Your task to perform on an android device: Show me popular videos on Youtube Image 0: 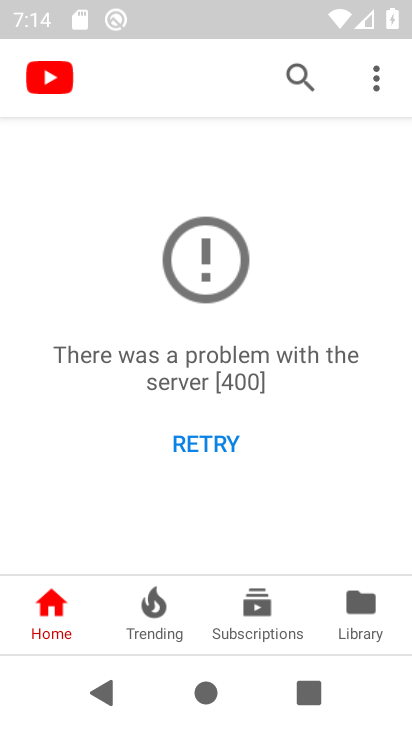
Step 0: press home button
Your task to perform on an android device: Show me popular videos on Youtube Image 1: 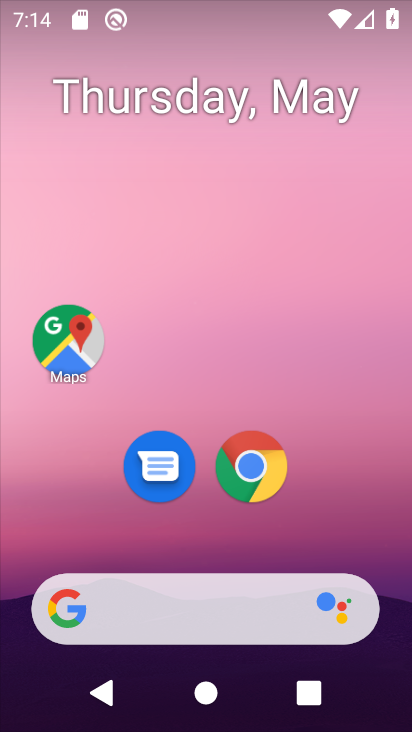
Step 1: drag from (379, 523) to (356, 83)
Your task to perform on an android device: Show me popular videos on Youtube Image 2: 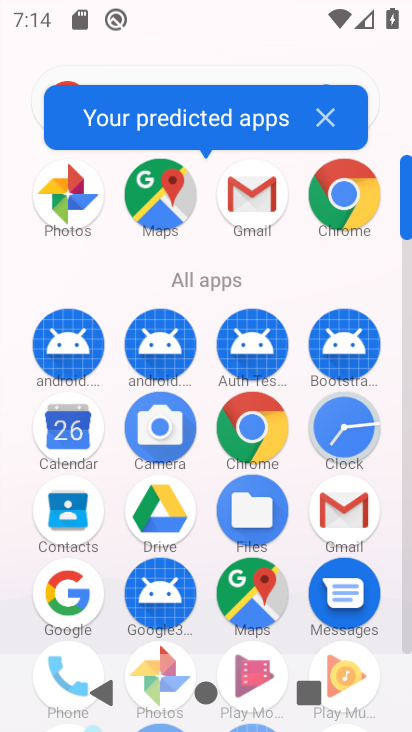
Step 2: click (407, 649)
Your task to perform on an android device: Show me popular videos on Youtube Image 3: 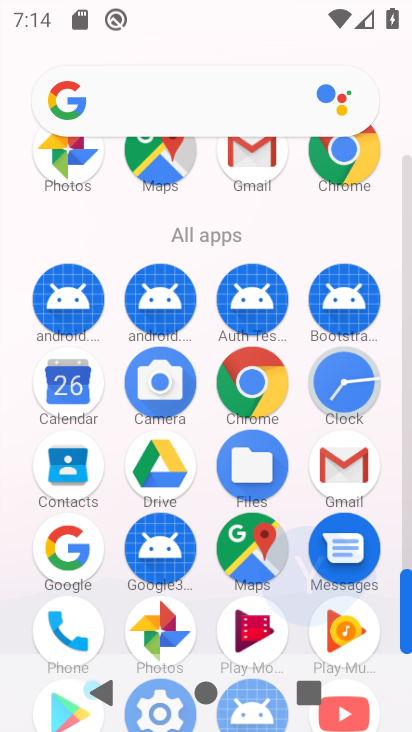
Step 3: click (407, 649)
Your task to perform on an android device: Show me popular videos on Youtube Image 4: 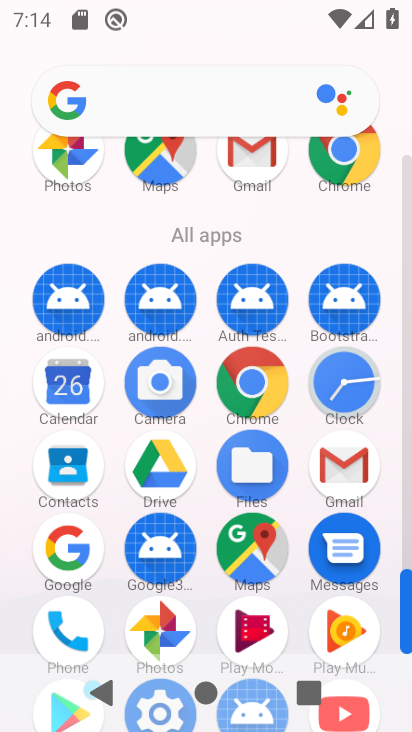
Step 4: drag from (401, 638) to (402, 731)
Your task to perform on an android device: Show me popular videos on Youtube Image 5: 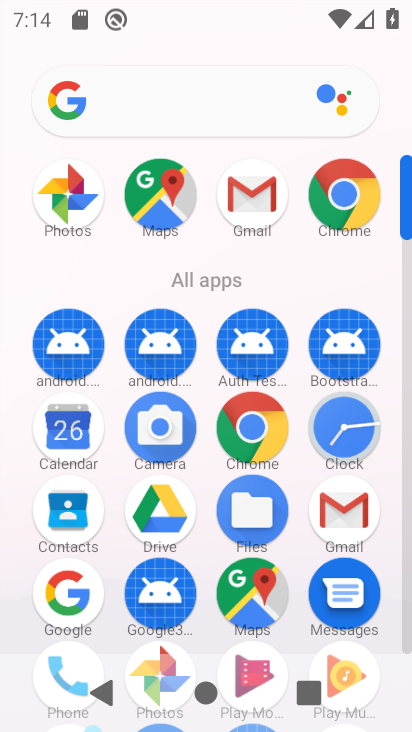
Step 5: click (348, 631)
Your task to perform on an android device: Show me popular videos on Youtube Image 6: 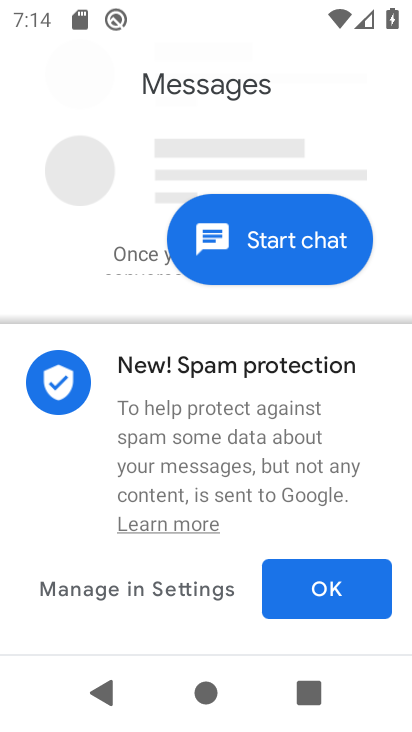
Step 6: click (211, 685)
Your task to perform on an android device: Show me popular videos on Youtube Image 7: 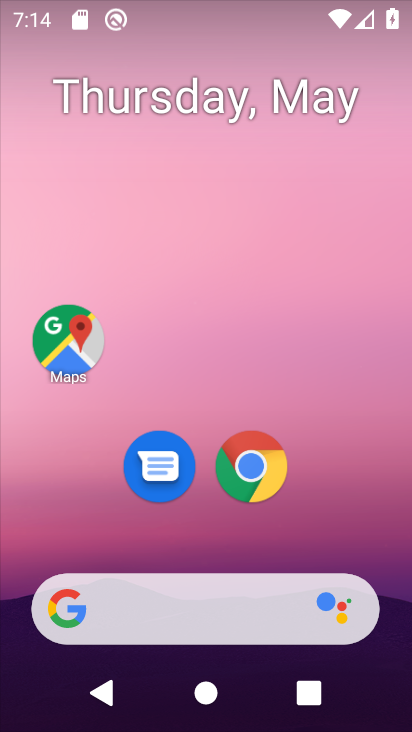
Step 7: drag from (350, 511) to (352, 28)
Your task to perform on an android device: Show me popular videos on Youtube Image 8: 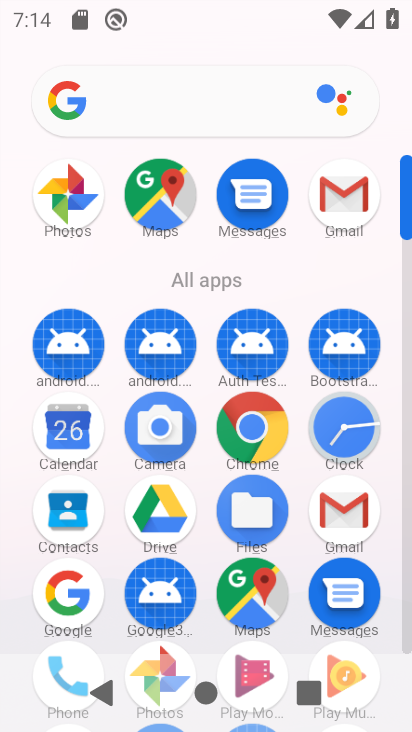
Step 8: click (405, 597)
Your task to perform on an android device: Show me popular videos on Youtube Image 9: 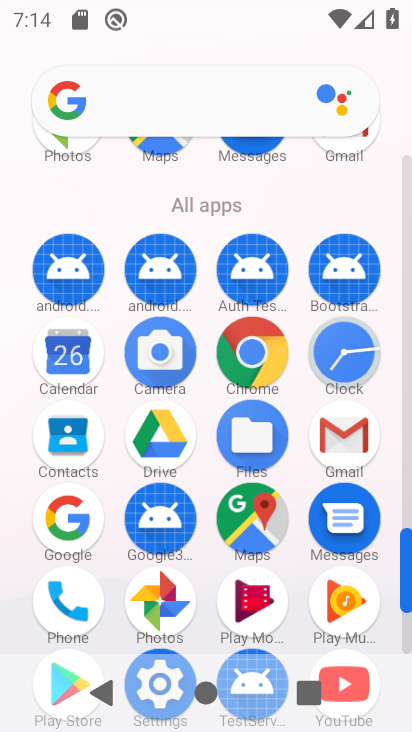
Step 9: click (408, 641)
Your task to perform on an android device: Show me popular videos on Youtube Image 10: 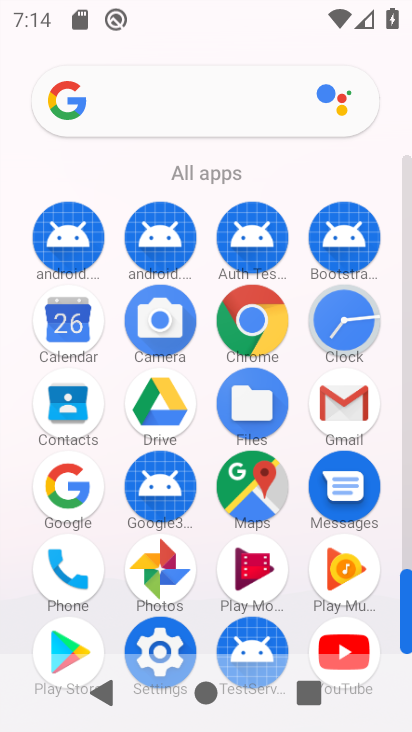
Step 10: click (357, 640)
Your task to perform on an android device: Show me popular videos on Youtube Image 11: 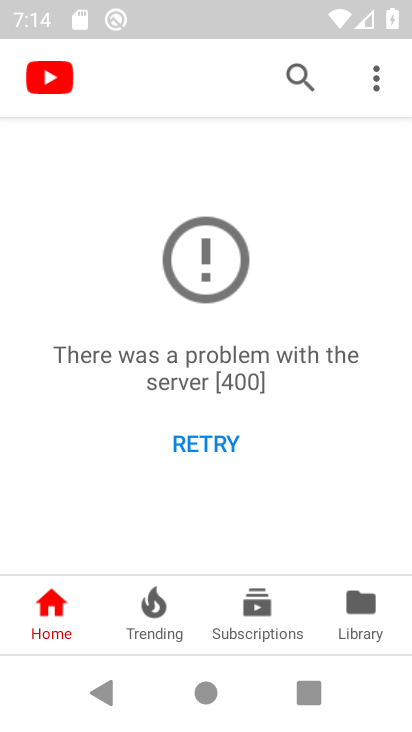
Step 11: task complete